Your task to perform on an android device: turn on javascript in the chrome app Image 0: 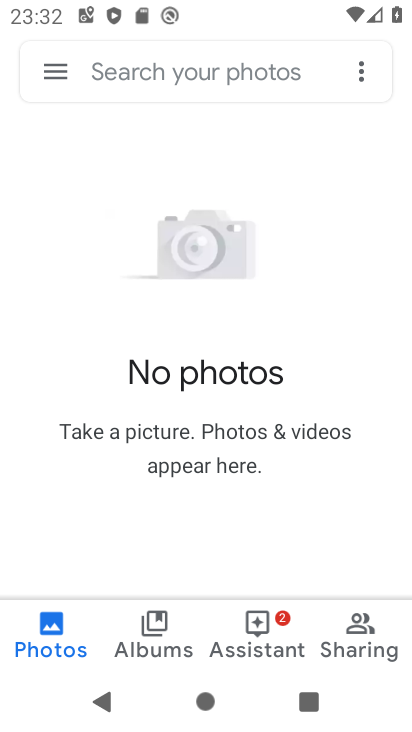
Step 0: press home button
Your task to perform on an android device: turn on javascript in the chrome app Image 1: 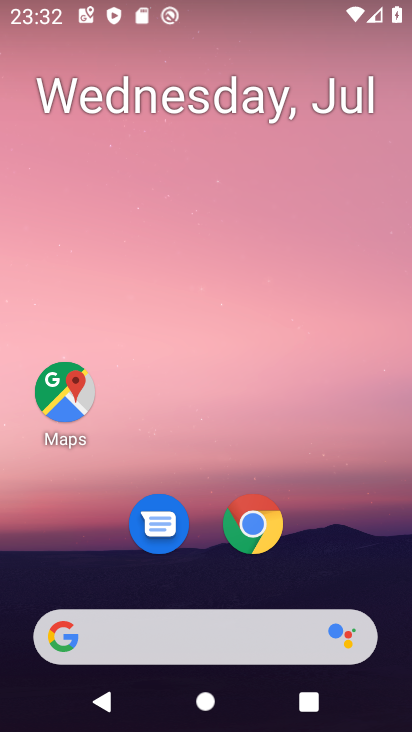
Step 1: click (248, 535)
Your task to perform on an android device: turn on javascript in the chrome app Image 2: 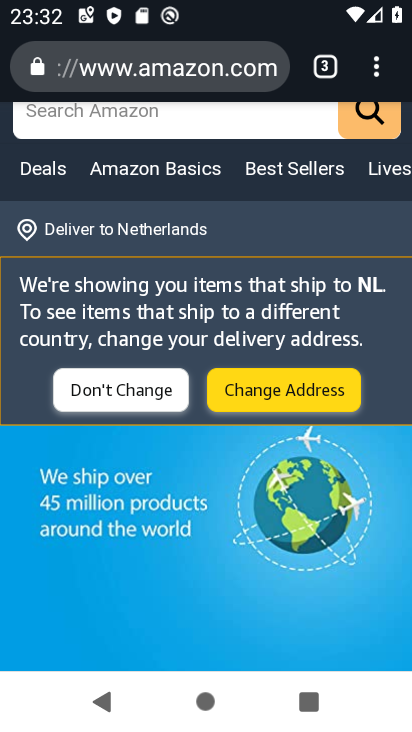
Step 2: drag from (378, 69) to (297, 529)
Your task to perform on an android device: turn on javascript in the chrome app Image 3: 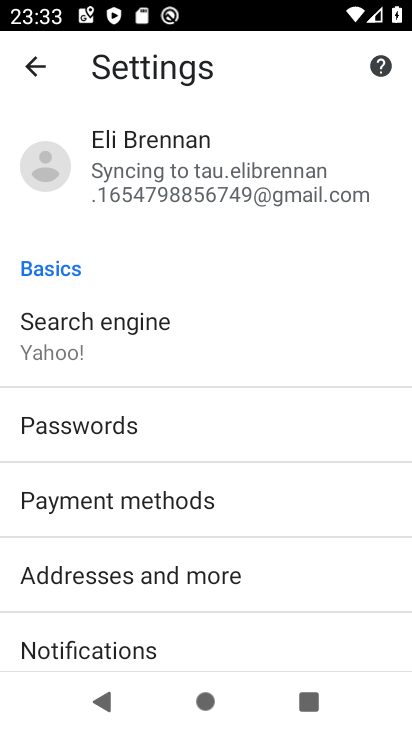
Step 3: drag from (250, 465) to (331, 149)
Your task to perform on an android device: turn on javascript in the chrome app Image 4: 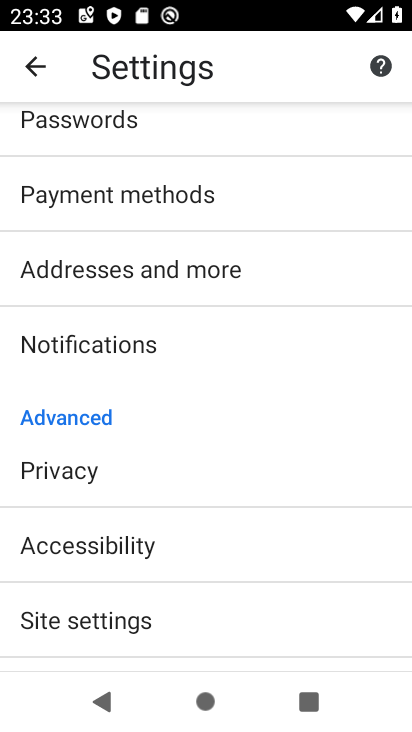
Step 4: drag from (219, 555) to (344, 195)
Your task to perform on an android device: turn on javascript in the chrome app Image 5: 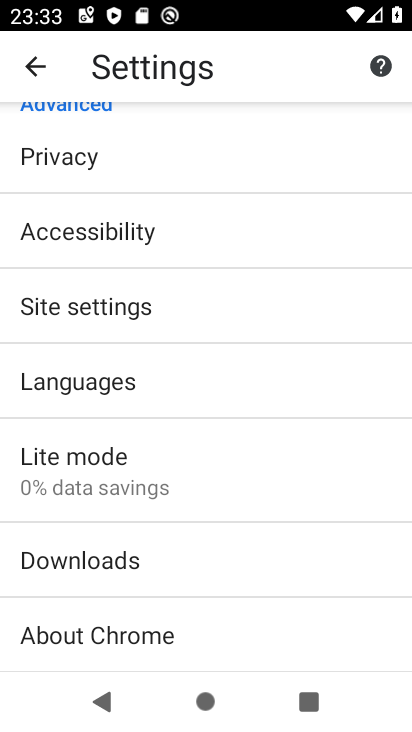
Step 5: click (112, 306)
Your task to perform on an android device: turn on javascript in the chrome app Image 6: 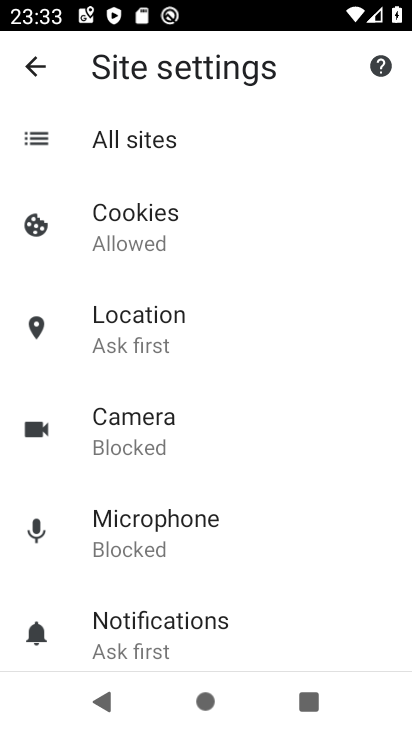
Step 6: drag from (251, 588) to (347, 159)
Your task to perform on an android device: turn on javascript in the chrome app Image 7: 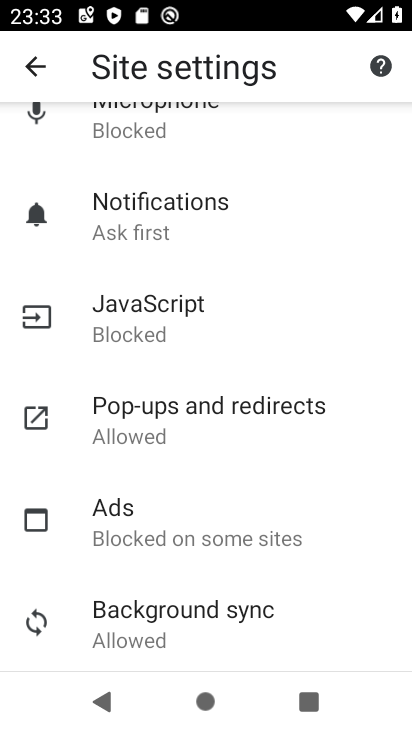
Step 7: click (146, 323)
Your task to perform on an android device: turn on javascript in the chrome app Image 8: 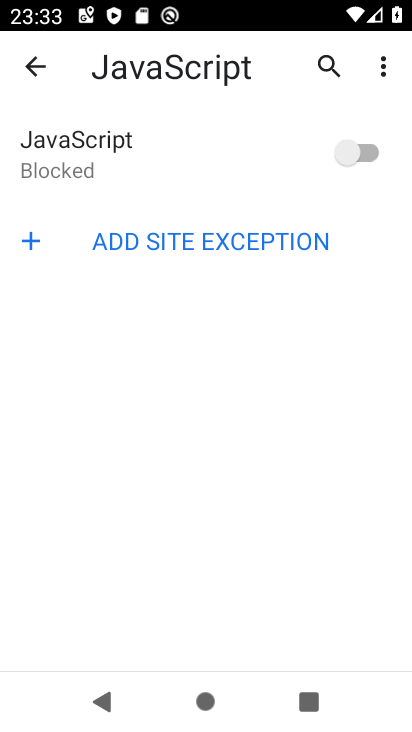
Step 8: click (363, 156)
Your task to perform on an android device: turn on javascript in the chrome app Image 9: 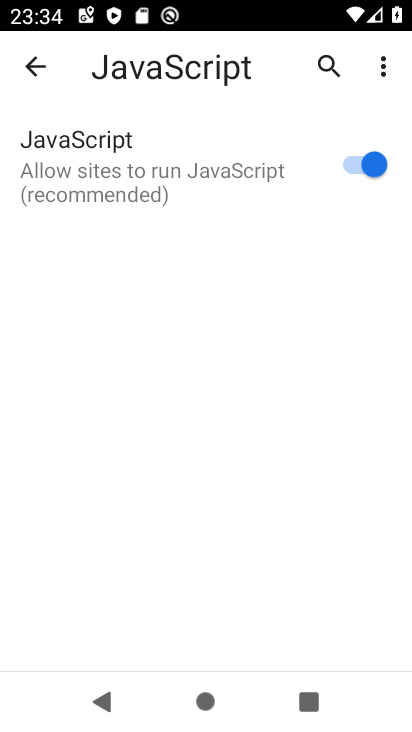
Step 9: task complete